Your task to perform on an android device: Open Wikipedia Image 0: 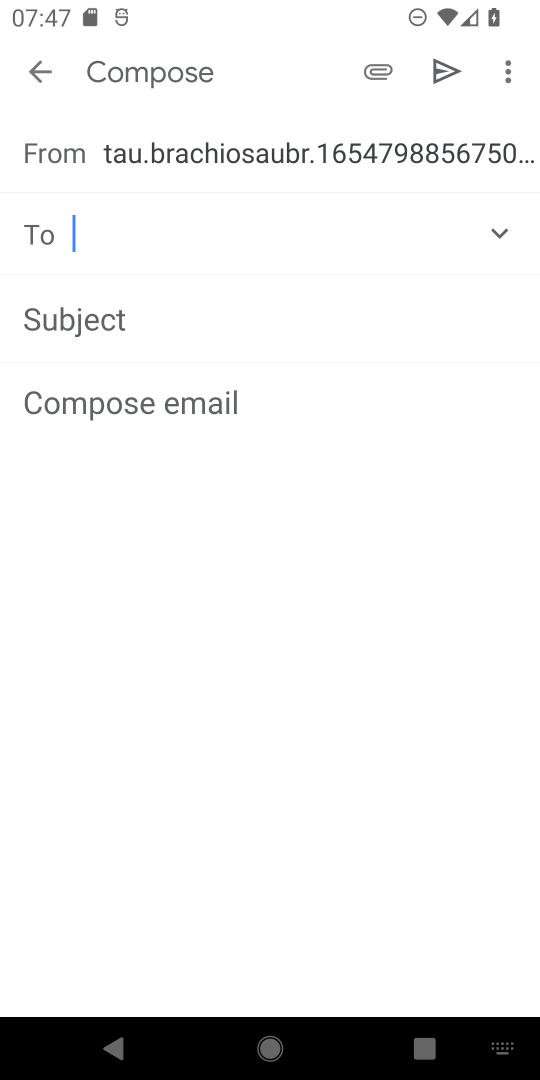
Step 0: press home button
Your task to perform on an android device: Open Wikipedia Image 1: 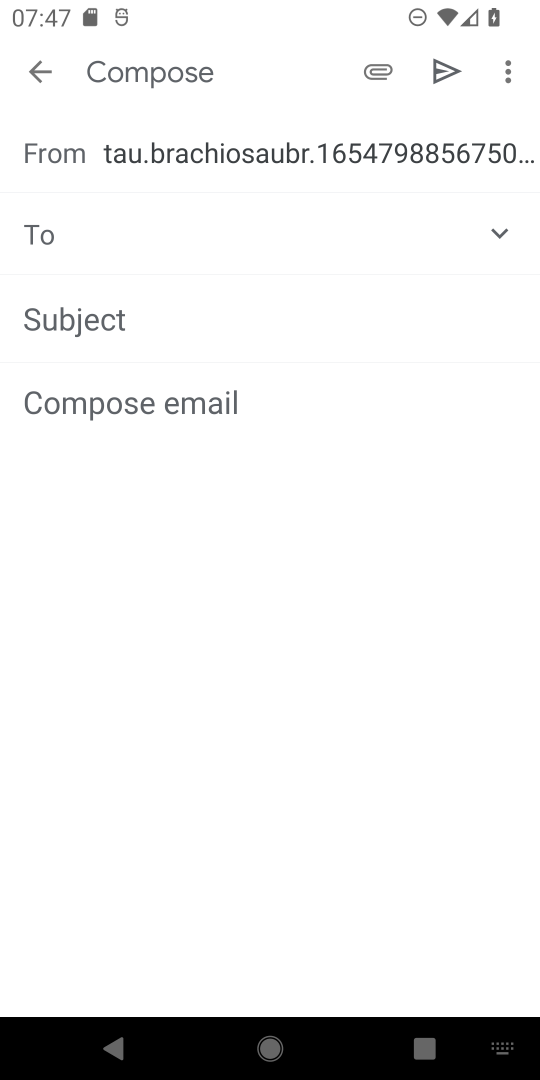
Step 1: press home button
Your task to perform on an android device: Open Wikipedia Image 2: 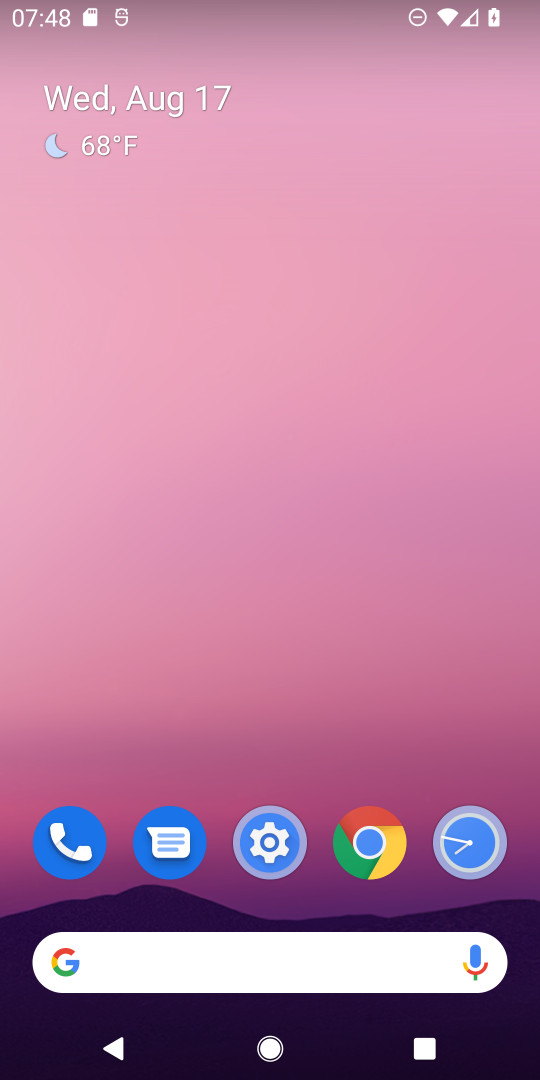
Step 2: click (372, 835)
Your task to perform on an android device: Open Wikipedia Image 3: 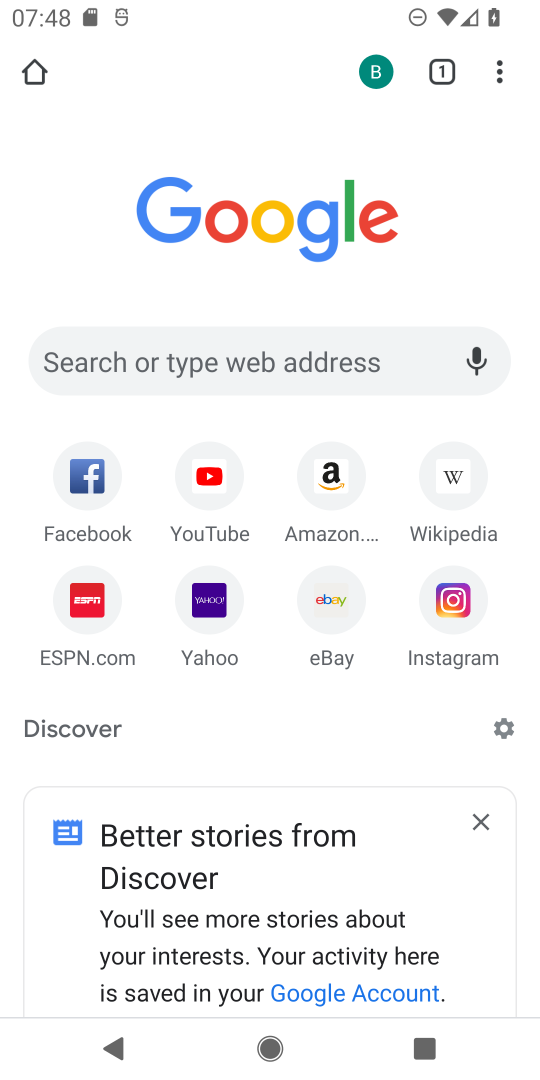
Step 3: click (455, 457)
Your task to perform on an android device: Open Wikipedia Image 4: 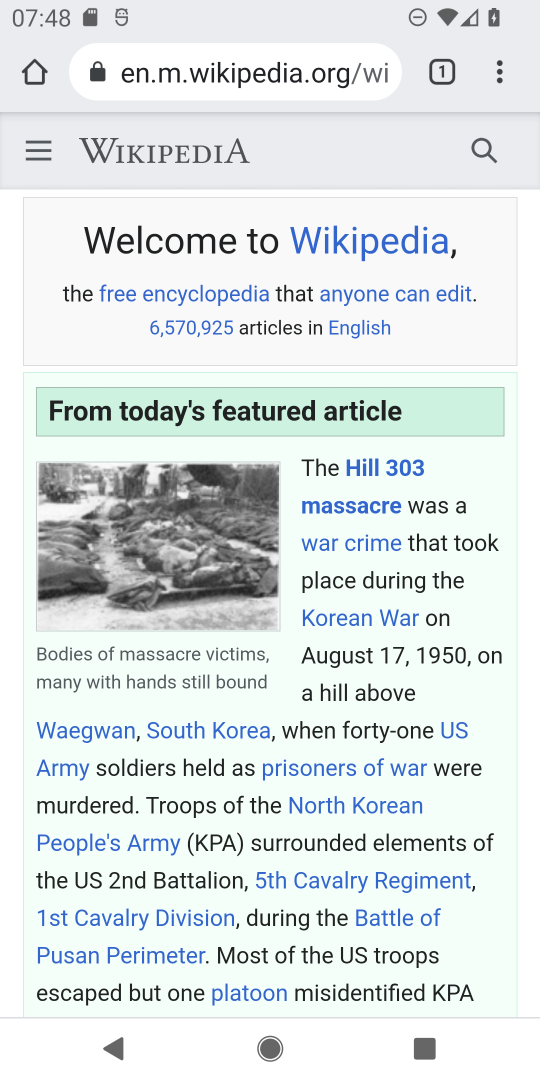
Step 4: task complete